Your task to perform on an android device: change keyboard looks Image 0: 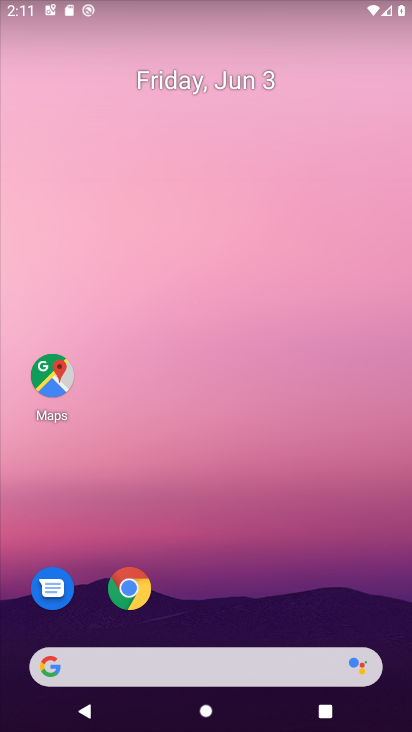
Step 0: drag from (162, 629) to (253, 25)
Your task to perform on an android device: change keyboard looks Image 1: 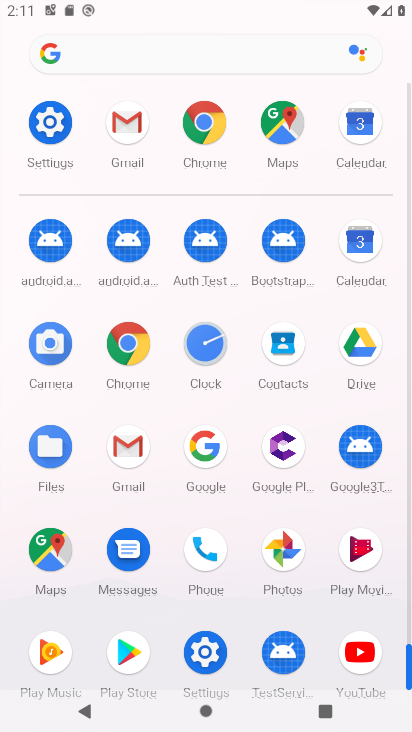
Step 1: click (57, 139)
Your task to perform on an android device: change keyboard looks Image 2: 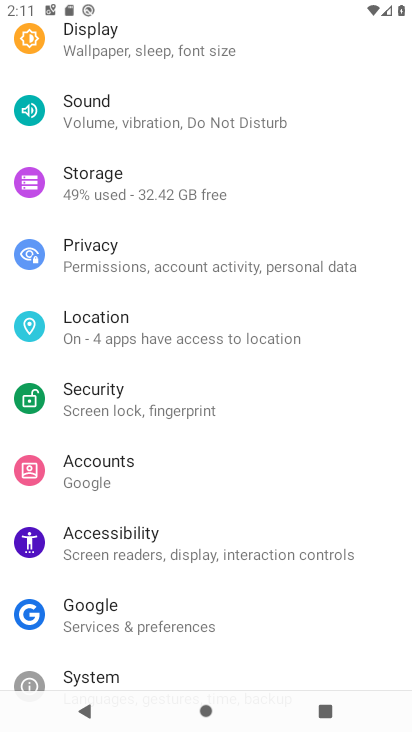
Step 2: drag from (116, 553) to (174, 271)
Your task to perform on an android device: change keyboard looks Image 3: 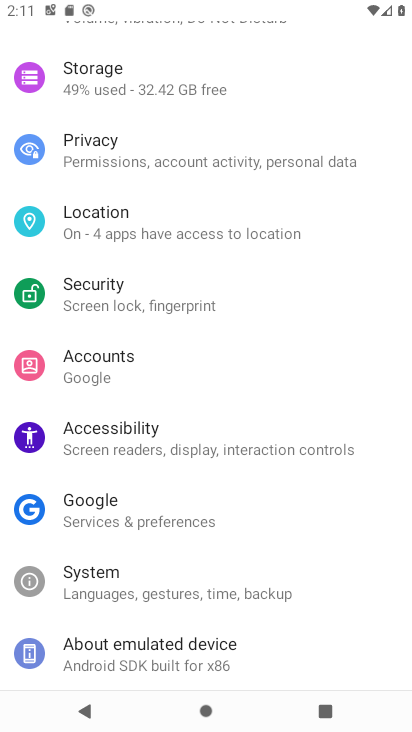
Step 3: click (156, 598)
Your task to perform on an android device: change keyboard looks Image 4: 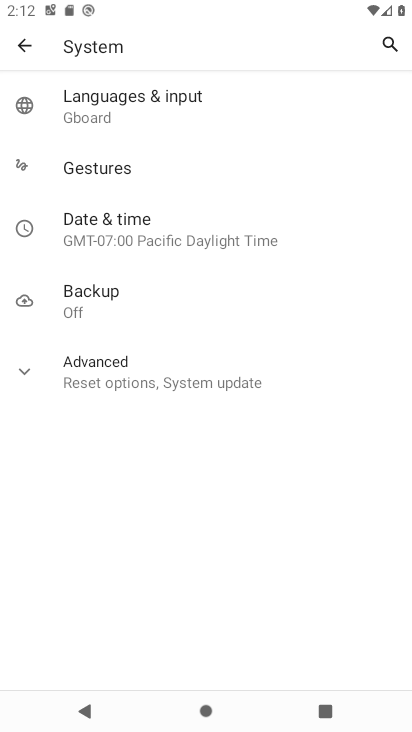
Step 4: click (160, 118)
Your task to perform on an android device: change keyboard looks Image 5: 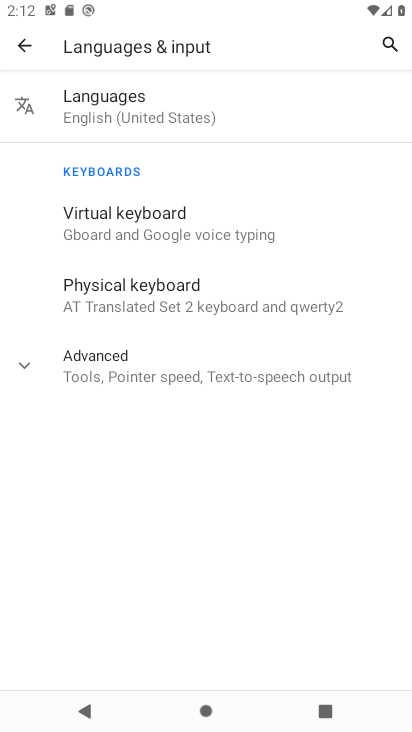
Step 5: click (121, 239)
Your task to perform on an android device: change keyboard looks Image 6: 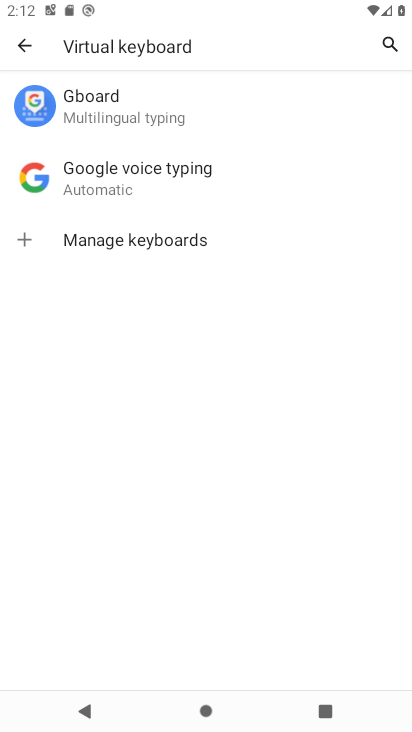
Step 6: click (173, 101)
Your task to perform on an android device: change keyboard looks Image 7: 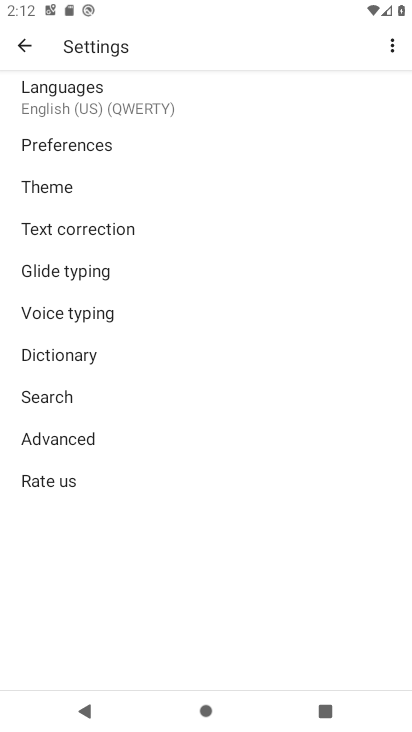
Step 7: click (71, 183)
Your task to perform on an android device: change keyboard looks Image 8: 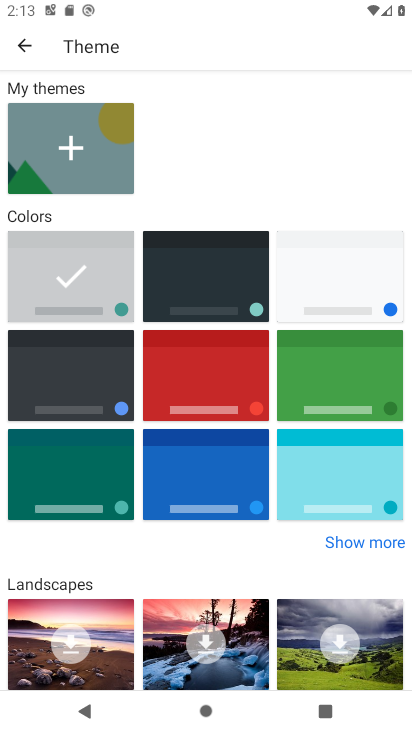
Step 8: click (334, 369)
Your task to perform on an android device: change keyboard looks Image 9: 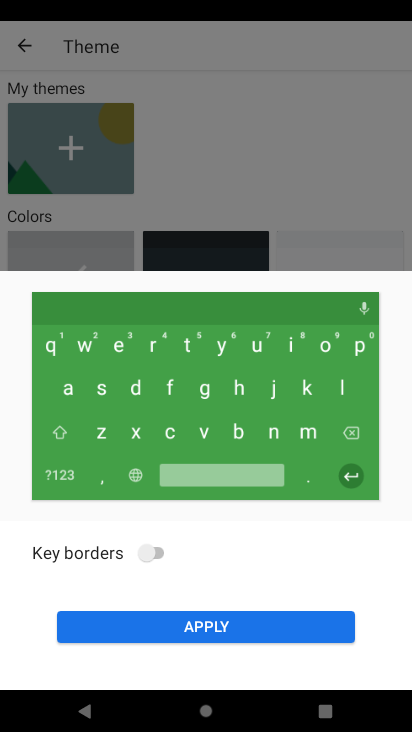
Step 9: click (273, 629)
Your task to perform on an android device: change keyboard looks Image 10: 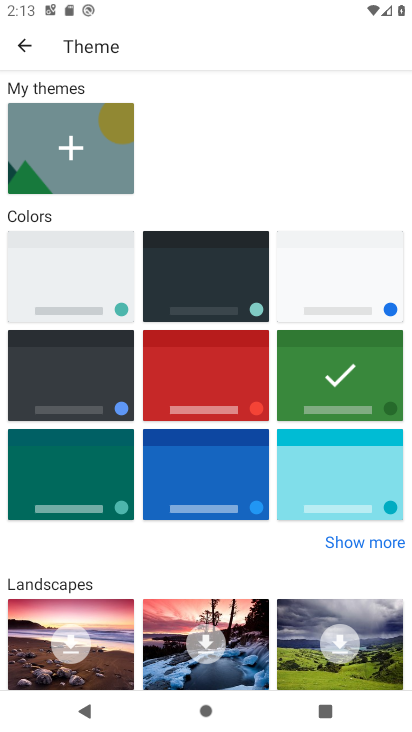
Step 10: task complete